Your task to perform on an android device: turn smart compose on in the gmail app Image 0: 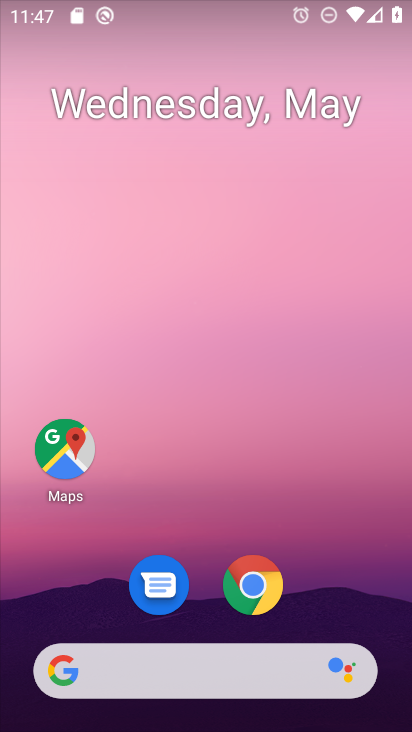
Step 0: drag from (253, 490) to (103, 82)
Your task to perform on an android device: turn smart compose on in the gmail app Image 1: 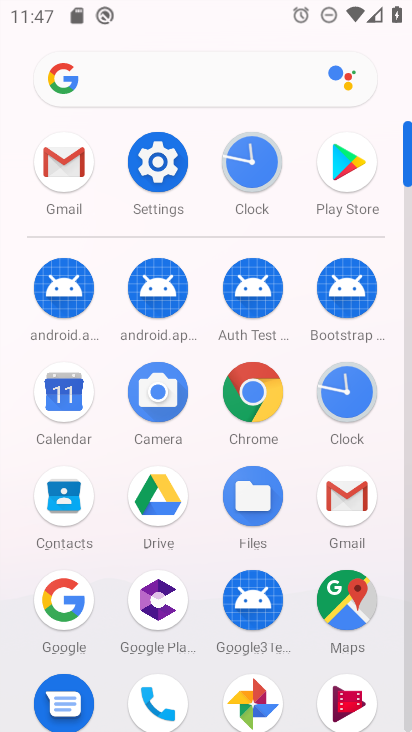
Step 1: click (68, 161)
Your task to perform on an android device: turn smart compose on in the gmail app Image 2: 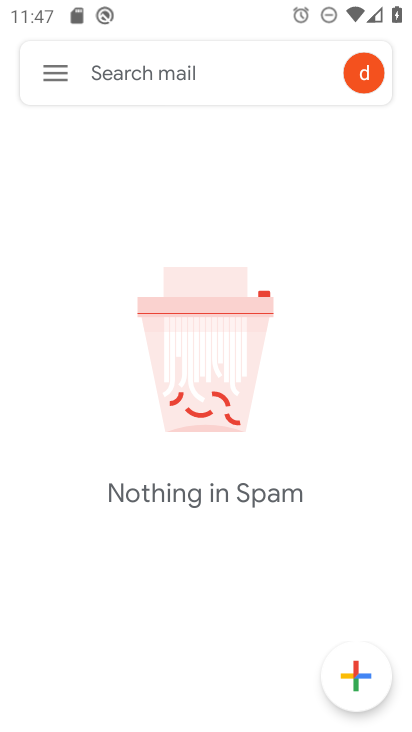
Step 2: click (54, 73)
Your task to perform on an android device: turn smart compose on in the gmail app Image 3: 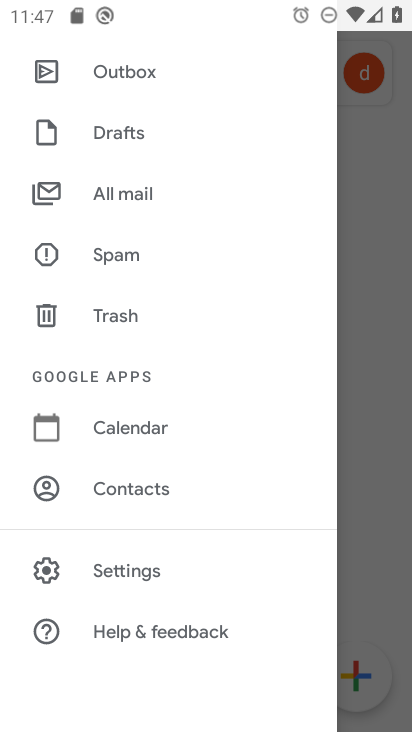
Step 3: click (139, 563)
Your task to perform on an android device: turn smart compose on in the gmail app Image 4: 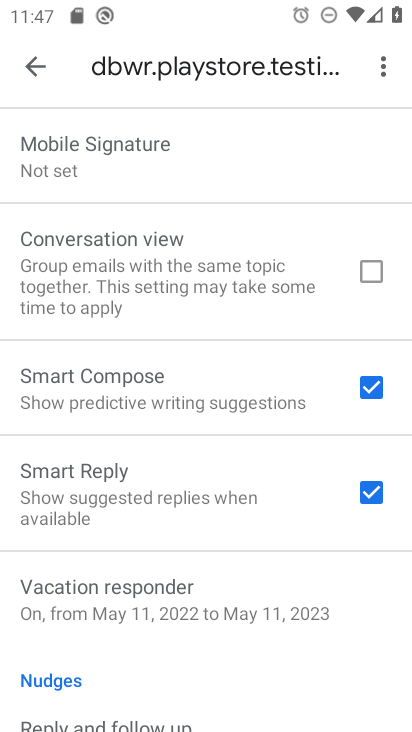
Step 4: task complete